Your task to perform on an android device: check android version Image 0: 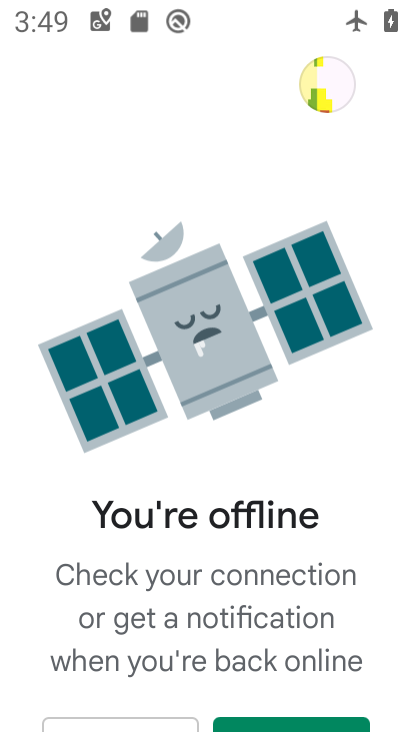
Step 0: press home button
Your task to perform on an android device: check android version Image 1: 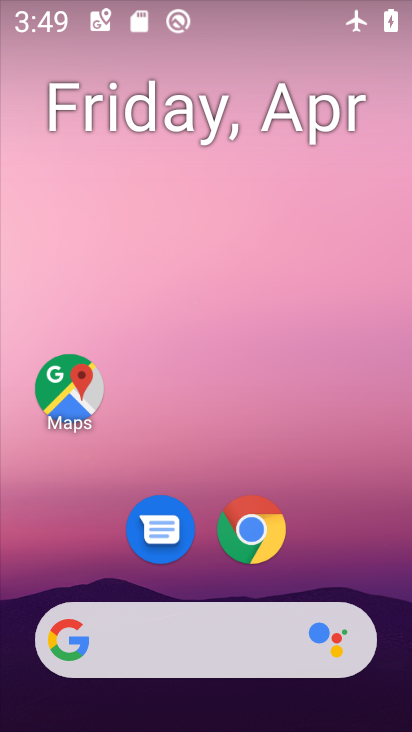
Step 1: drag from (325, 578) to (317, 0)
Your task to perform on an android device: check android version Image 2: 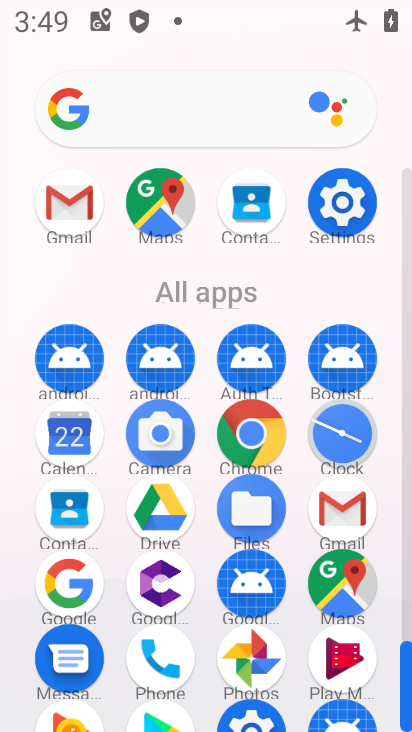
Step 2: click (341, 197)
Your task to perform on an android device: check android version Image 3: 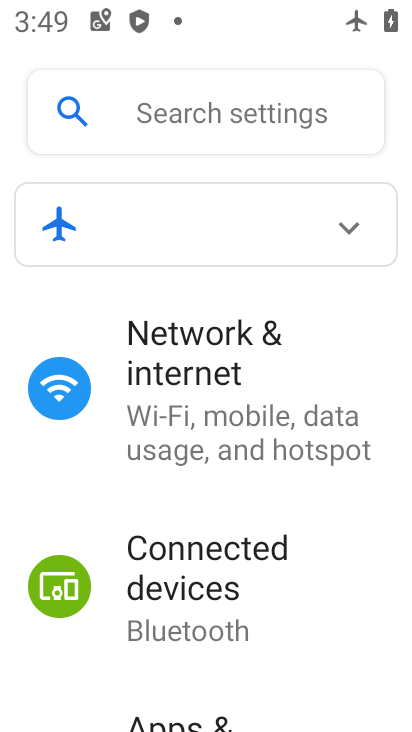
Step 3: drag from (221, 586) to (262, 241)
Your task to perform on an android device: check android version Image 4: 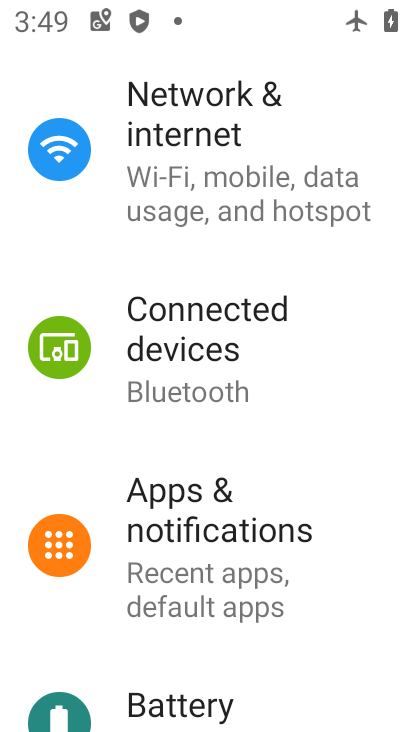
Step 4: drag from (240, 596) to (286, 198)
Your task to perform on an android device: check android version Image 5: 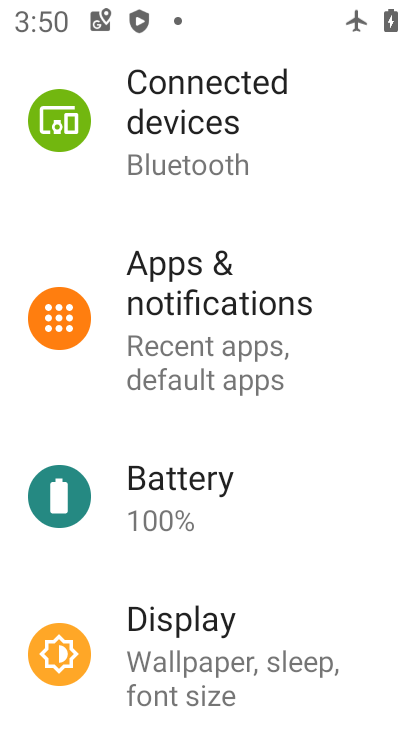
Step 5: drag from (232, 501) to (324, 155)
Your task to perform on an android device: check android version Image 6: 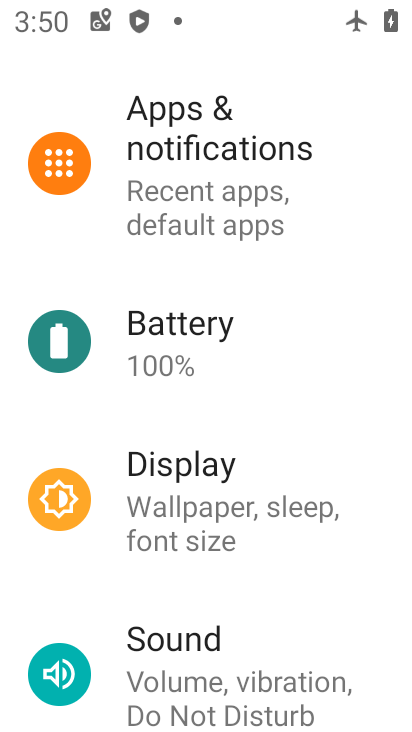
Step 6: drag from (307, 465) to (386, 89)
Your task to perform on an android device: check android version Image 7: 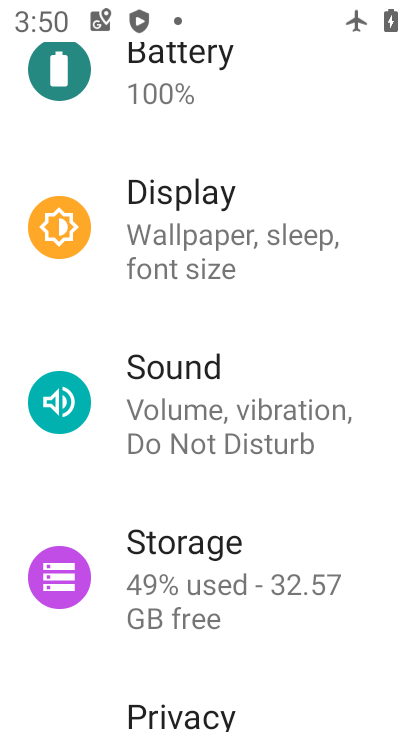
Step 7: drag from (261, 600) to (308, 197)
Your task to perform on an android device: check android version Image 8: 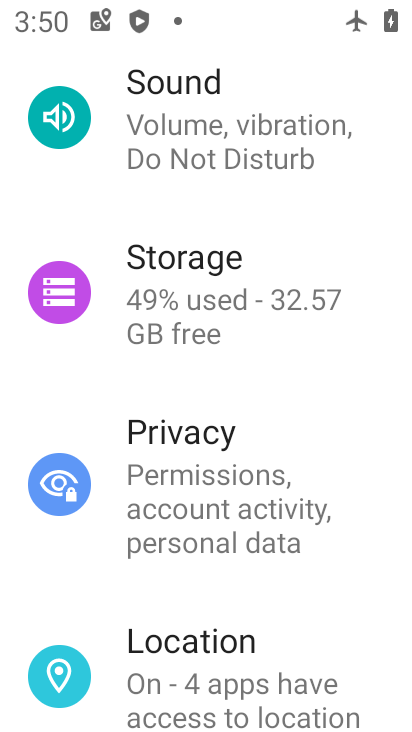
Step 8: drag from (287, 517) to (306, 190)
Your task to perform on an android device: check android version Image 9: 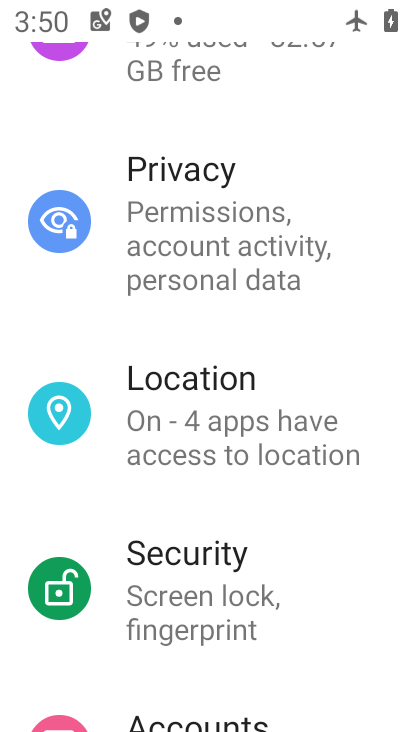
Step 9: drag from (293, 397) to (326, 158)
Your task to perform on an android device: check android version Image 10: 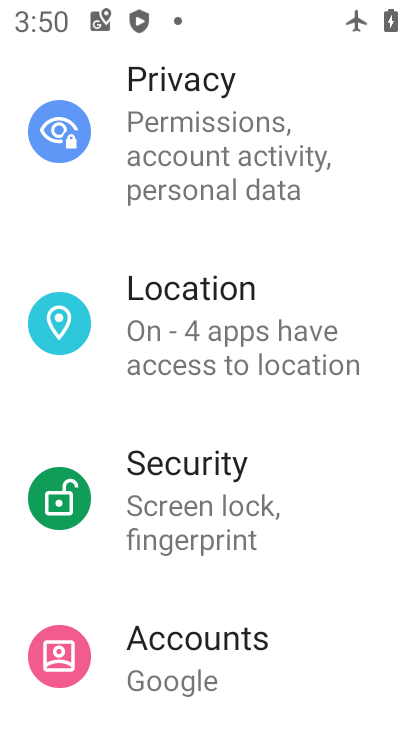
Step 10: drag from (268, 513) to (287, 262)
Your task to perform on an android device: check android version Image 11: 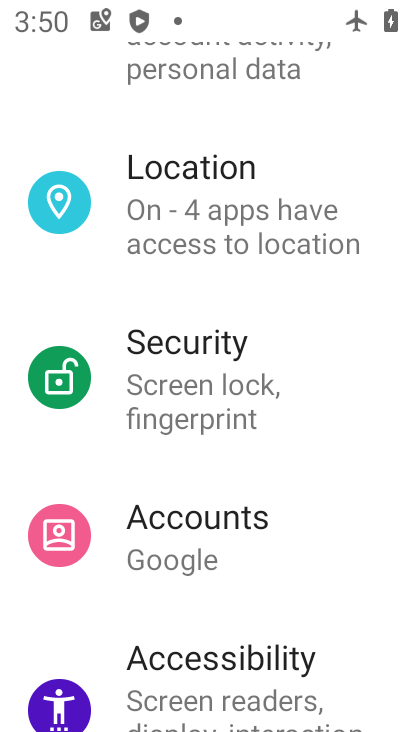
Step 11: drag from (248, 566) to (254, 283)
Your task to perform on an android device: check android version Image 12: 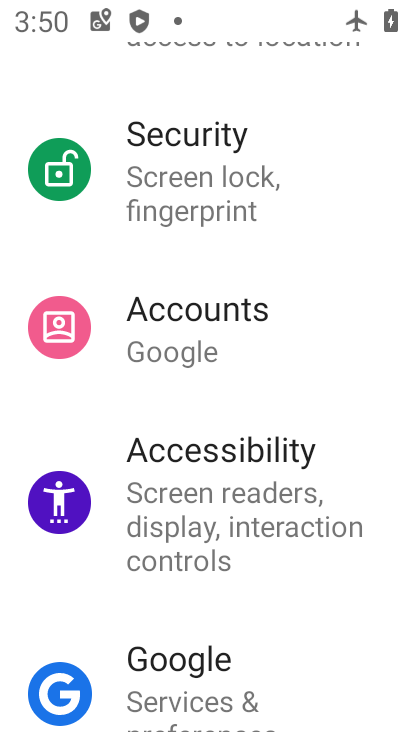
Step 12: drag from (279, 582) to (289, 245)
Your task to perform on an android device: check android version Image 13: 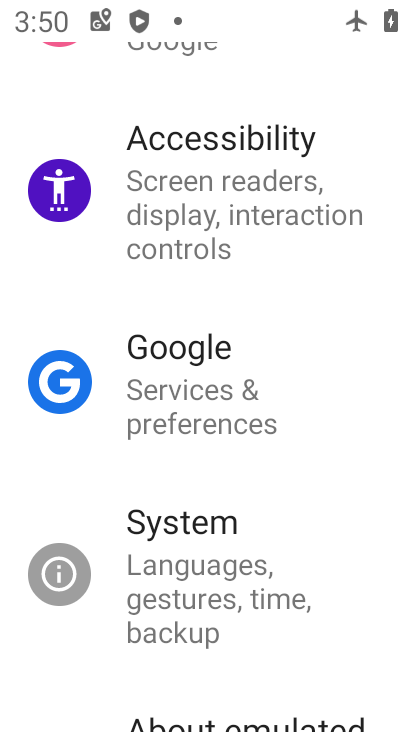
Step 13: drag from (225, 618) to (245, 302)
Your task to perform on an android device: check android version Image 14: 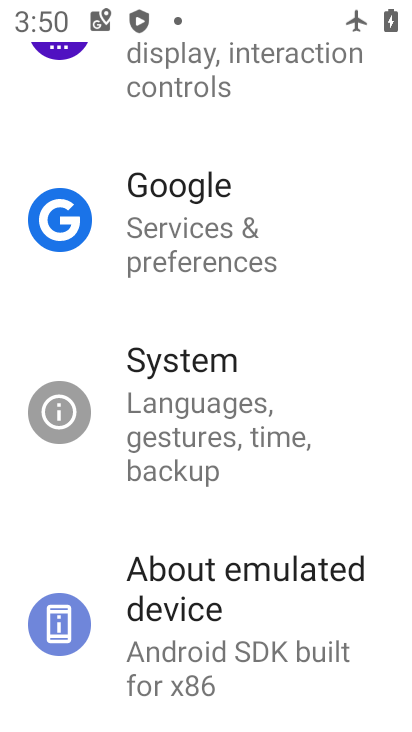
Step 14: click (205, 611)
Your task to perform on an android device: check android version Image 15: 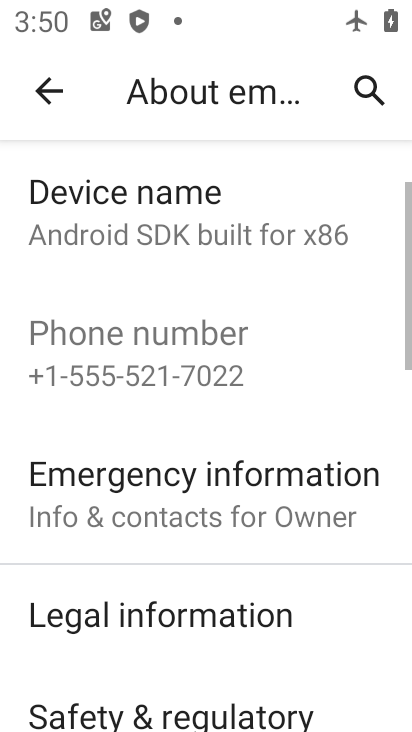
Step 15: drag from (196, 626) to (238, 389)
Your task to perform on an android device: check android version Image 16: 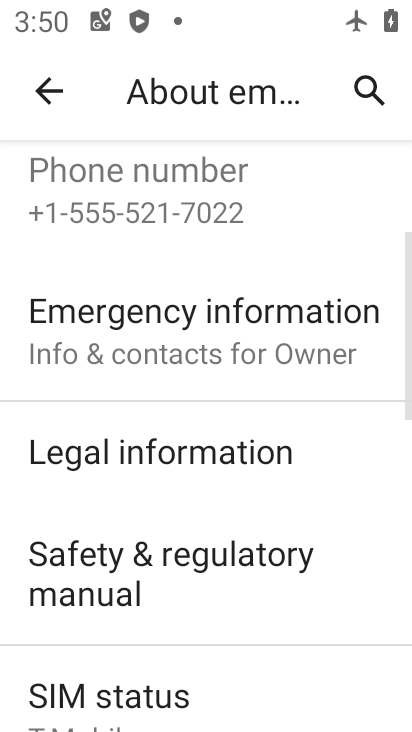
Step 16: drag from (197, 679) to (259, 384)
Your task to perform on an android device: check android version Image 17: 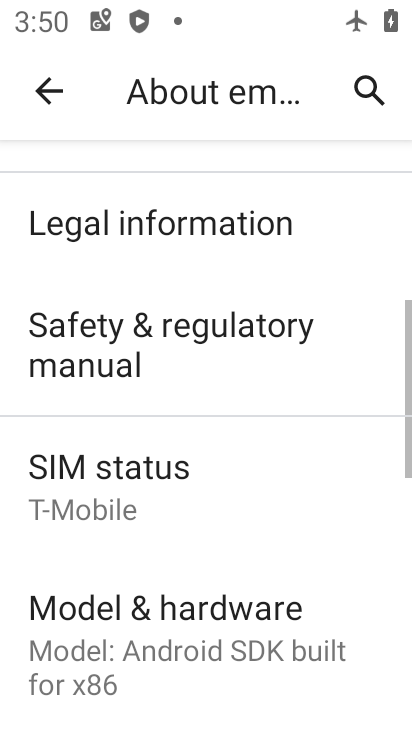
Step 17: drag from (258, 451) to (271, 352)
Your task to perform on an android device: check android version Image 18: 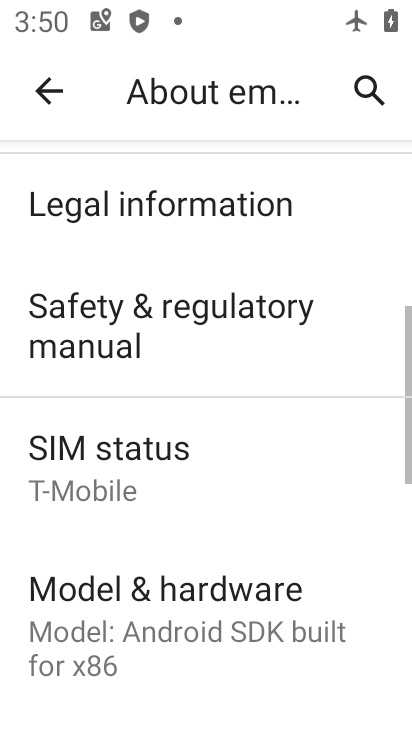
Step 18: drag from (224, 604) to (263, 268)
Your task to perform on an android device: check android version Image 19: 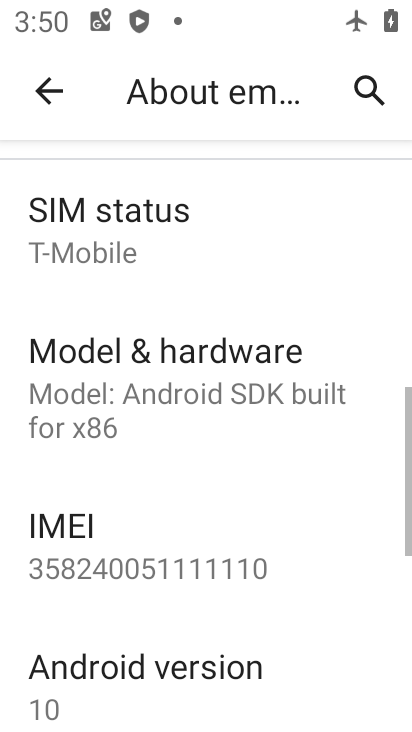
Step 19: drag from (194, 625) to (229, 395)
Your task to perform on an android device: check android version Image 20: 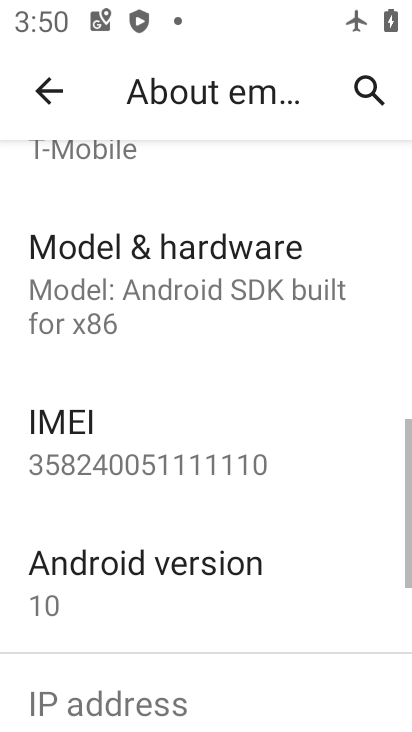
Step 20: click (167, 563)
Your task to perform on an android device: check android version Image 21: 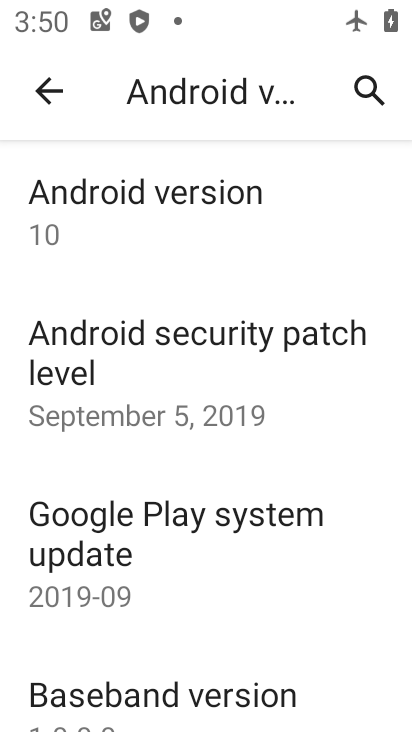
Step 21: task complete